Your task to perform on an android device: change alarm snooze length Image 0: 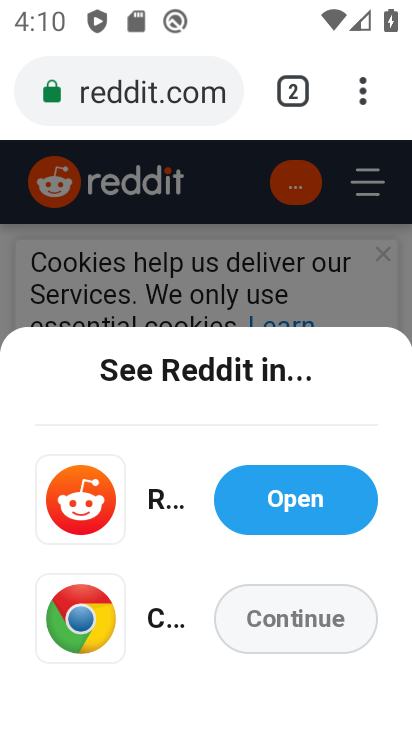
Step 0: press home button
Your task to perform on an android device: change alarm snooze length Image 1: 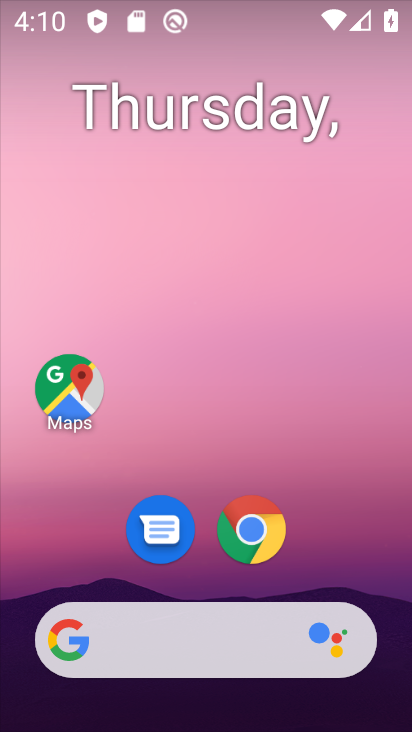
Step 1: drag from (214, 723) to (220, 220)
Your task to perform on an android device: change alarm snooze length Image 2: 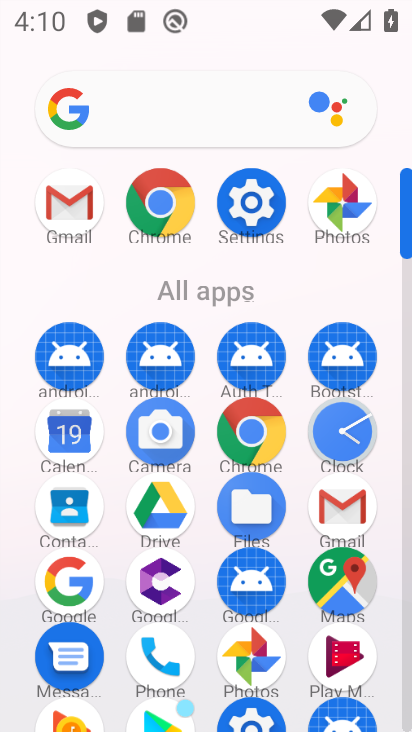
Step 2: click (346, 430)
Your task to perform on an android device: change alarm snooze length Image 3: 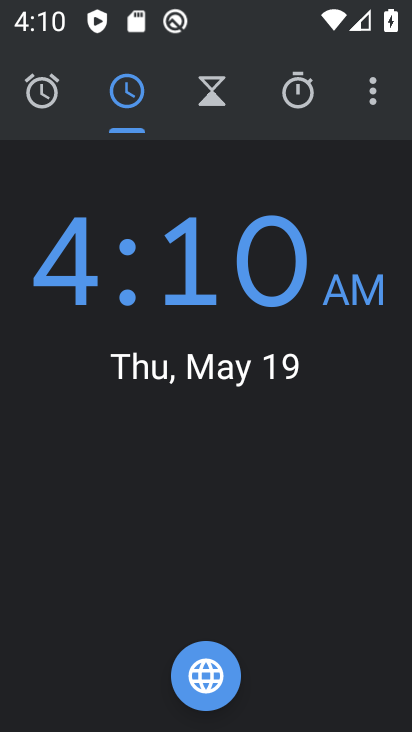
Step 3: click (375, 100)
Your task to perform on an android device: change alarm snooze length Image 4: 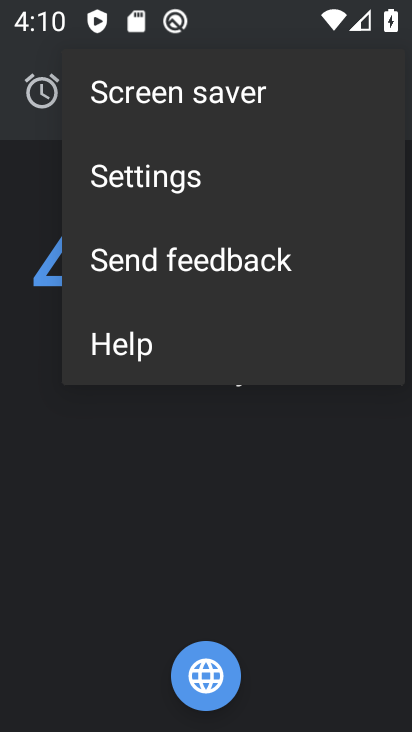
Step 4: click (158, 173)
Your task to perform on an android device: change alarm snooze length Image 5: 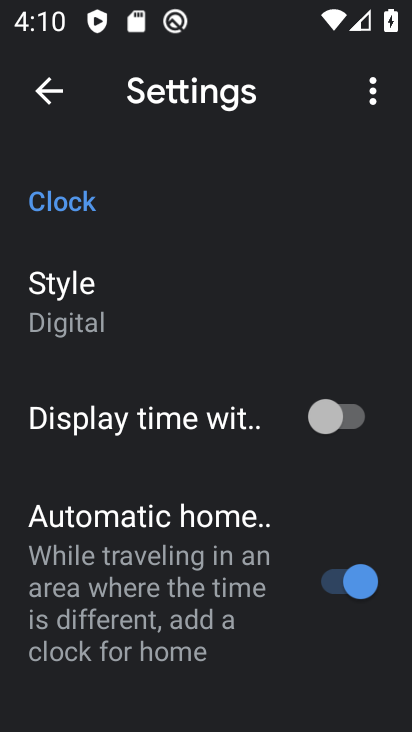
Step 5: drag from (112, 667) to (150, 215)
Your task to perform on an android device: change alarm snooze length Image 6: 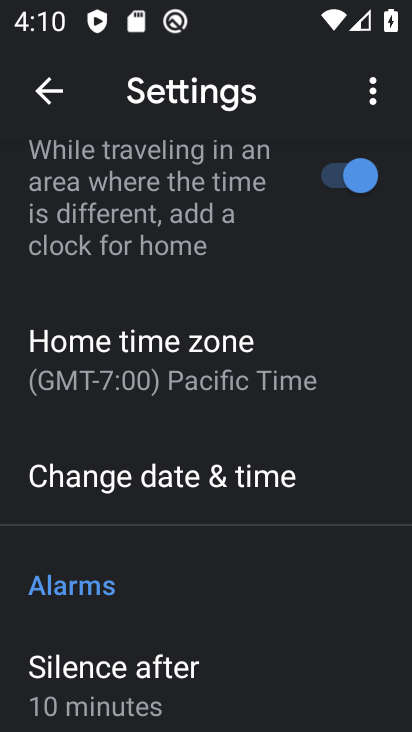
Step 6: drag from (133, 661) to (136, 170)
Your task to perform on an android device: change alarm snooze length Image 7: 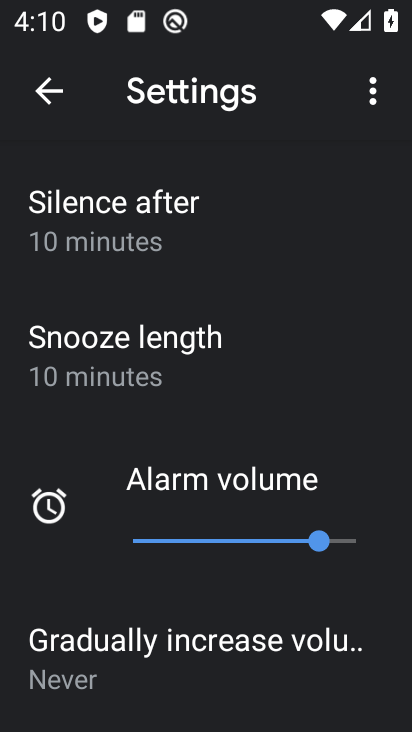
Step 7: click (110, 350)
Your task to perform on an android device: change alarm snooze length Image 8: 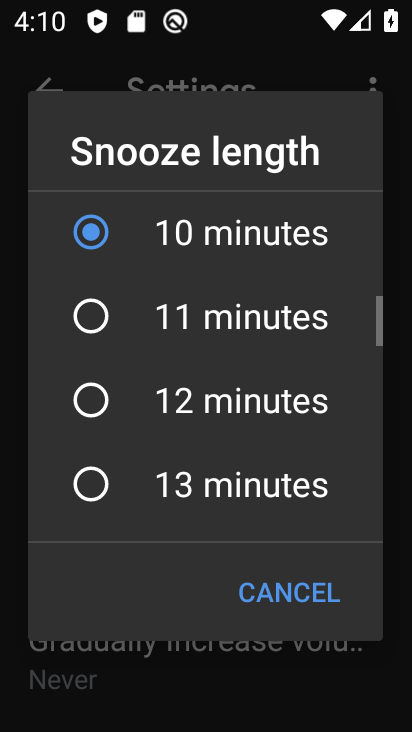
Step 8: click (84, 410)
Your task to perform on an android device: change alarm snooze length Image 9: 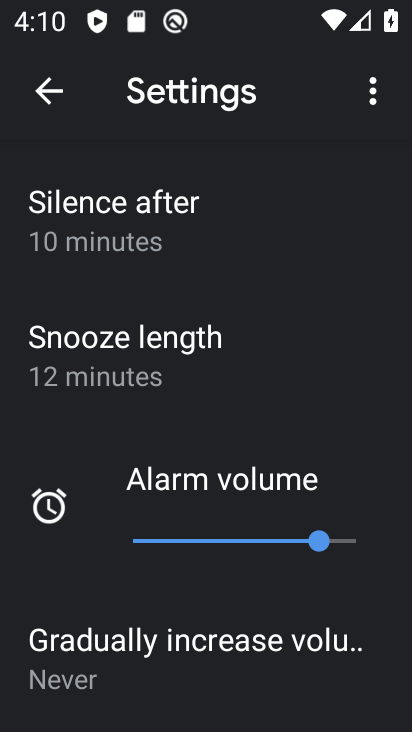
Step 9: task complete